Your task to perform on an android device: Open Android settings Image 0: 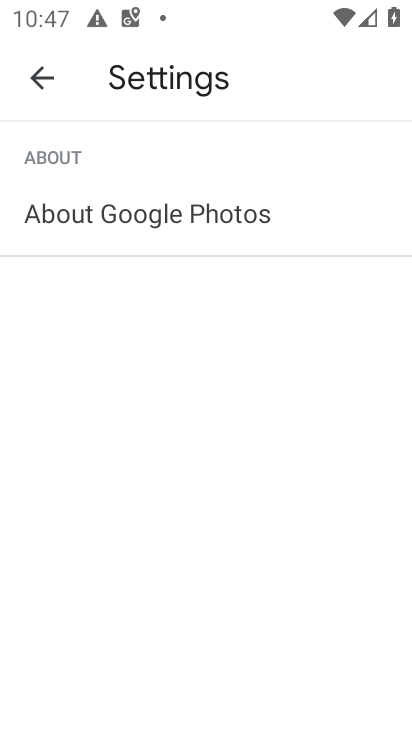
Step 0: press home button
Your task to perform on an android device: Open Android settings Image 1: 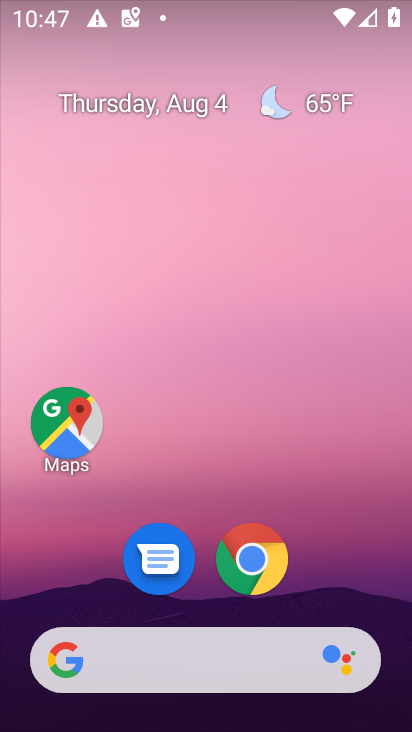
Step 1: drag from (232, 656) to (149, 185)
Your task to perform on an android device: Open Android settings Image 2: 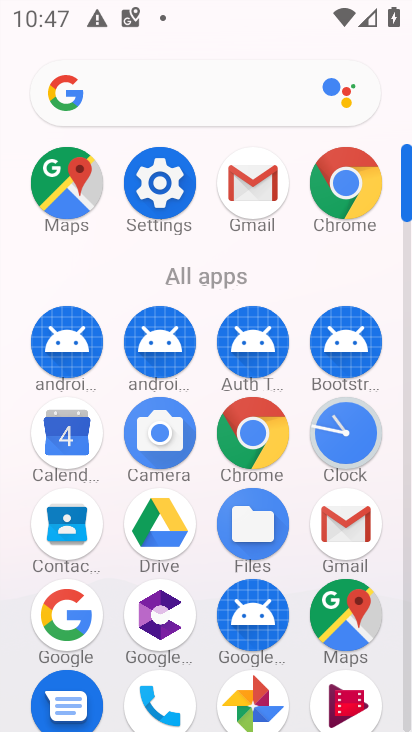
Step 2: click (158, 187)
Your task to perform on an android device: Open Android settings Image 3: 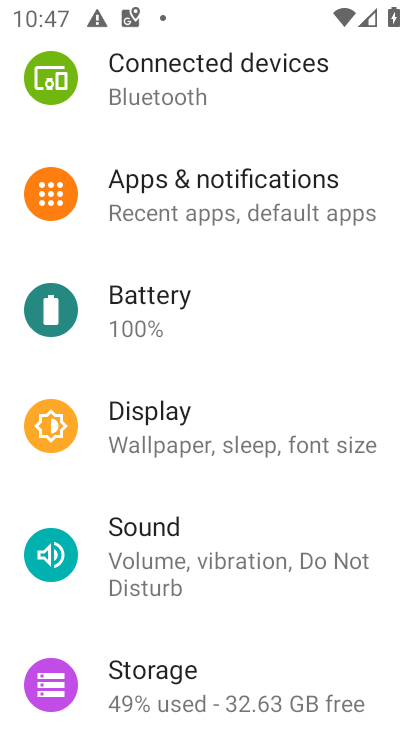
Step 3: task complete